Your task to perform on an android device: Open wifi settings Image 0: 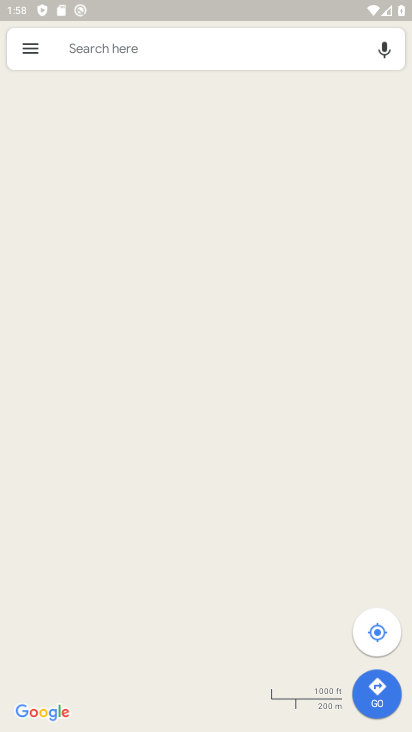
Step 0: press home button
Your task to perform on an android device: Open wifi settings Image 1: 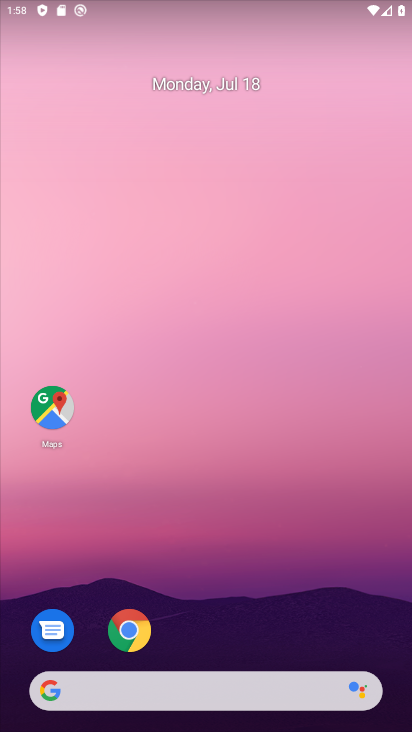
Step 1: drag from (339, 626) to (306, 291)
Your task to perform on an android device: Open wifi settings Image 2: 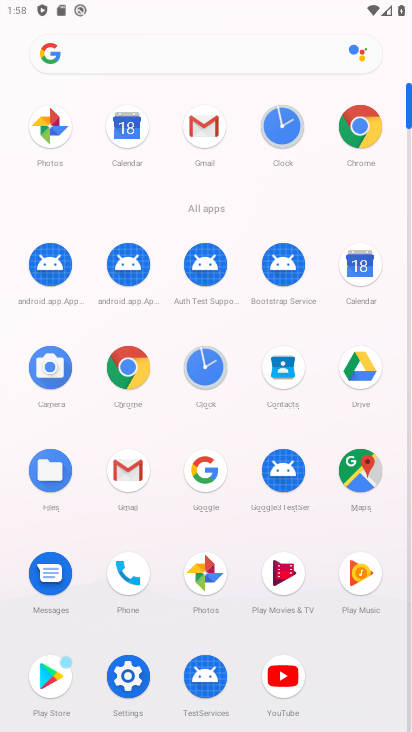
Step 2: click (125, 675)
Your task to perform on an android device: Open wifi settings Image 3: 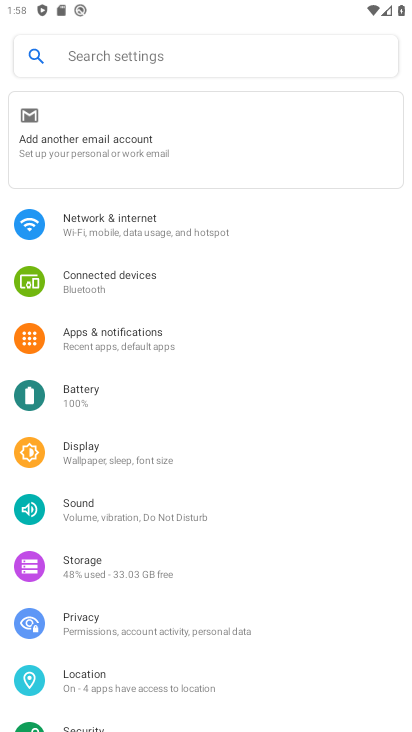
Step 3: click (110, 217)
Your task to perform on an android device: Open wifi settings Image 4: 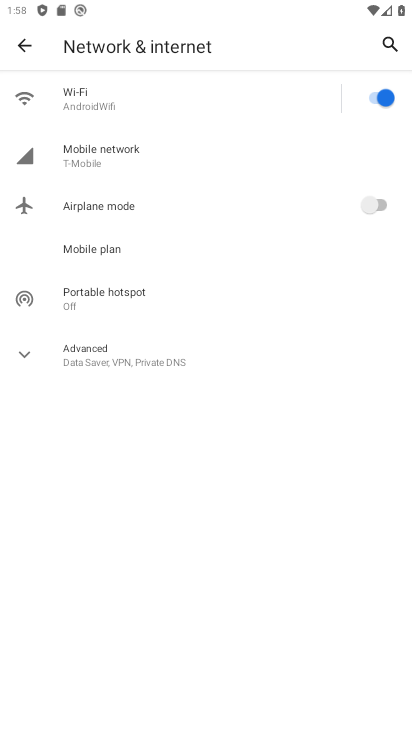
Step 4: click (94, 102)
Your task to perform on an android device: Open wifi settings Image 5: 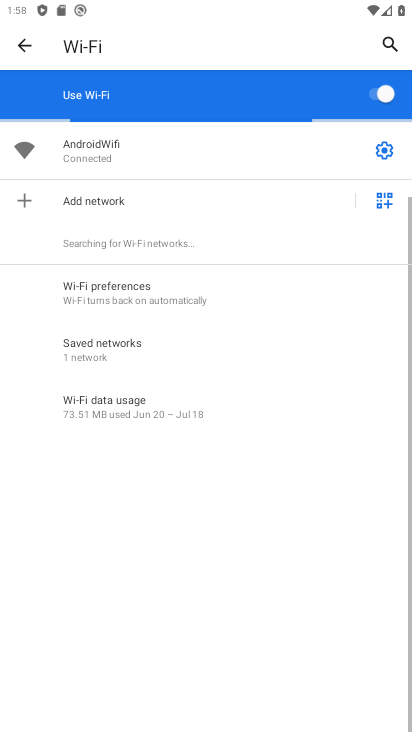
Step 5: task complete